Your task to perform on an android device: What's the weather today? Image 0: 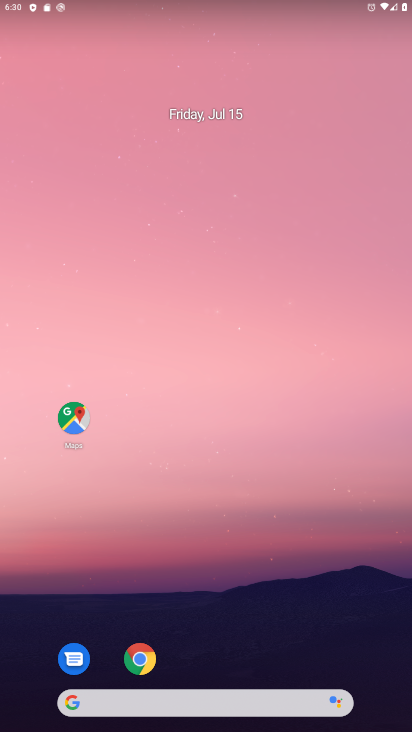
Step 0: drag from (8, 258) to (395, 260)
Your task to perform on an android device: What's the weather today? Image 1: 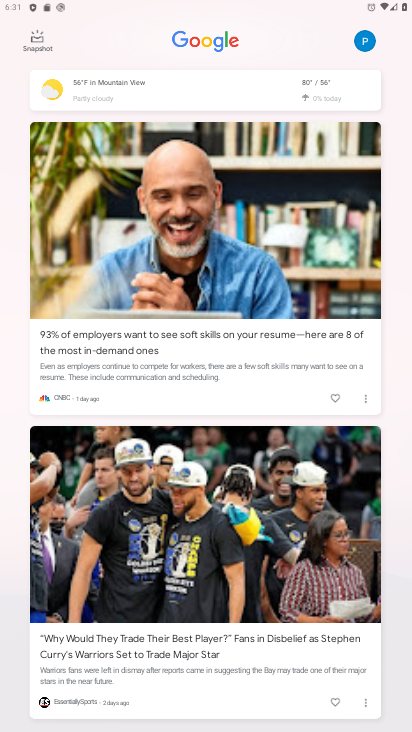
Step 1: click (307, 76)
Your task to perform on an android device: What's the weather today? Image 2: 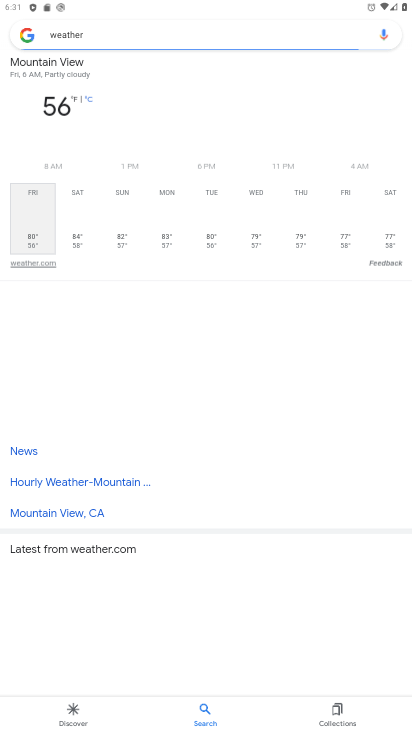
Step 2: task complete